Your task to perform on an android device: Open the stopwatch Image 0: 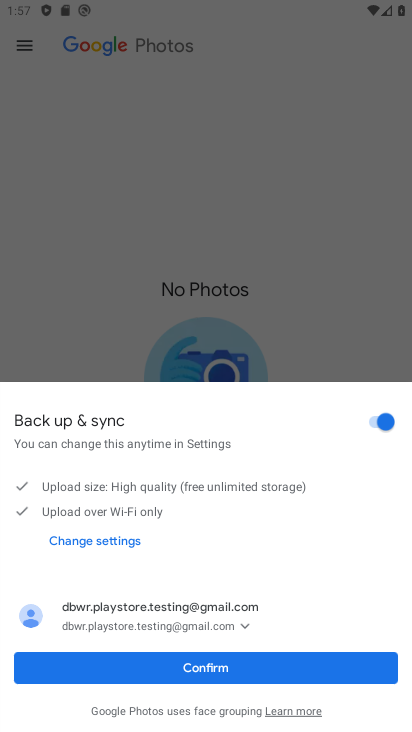
Step 0: press home button
Your task to perform on an android device: Open the stopwatch Image 1: 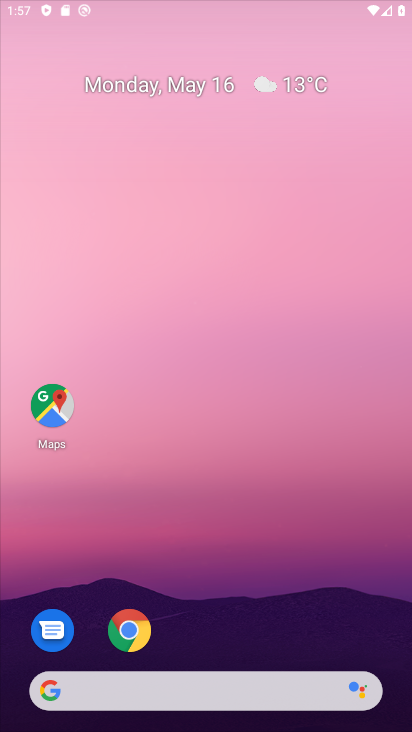
Step 1: drag from (312, 487) to (373, 44)
Your task to perform on an android device: Open the stopwatch Image 2: 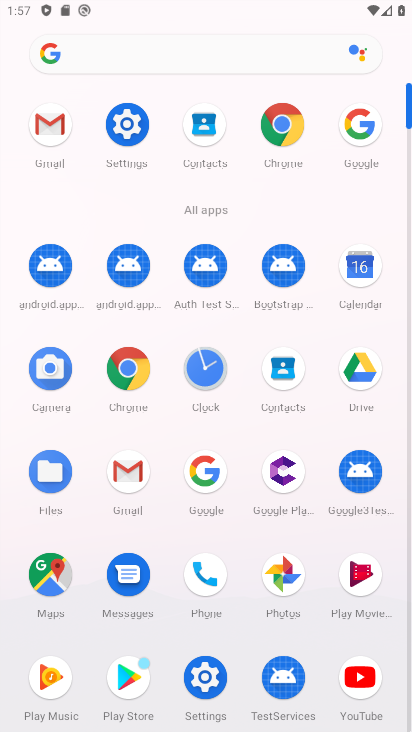
Step 2: click (208, 390)
Your task to perform on an android device: Open the stopwatch Image 3: 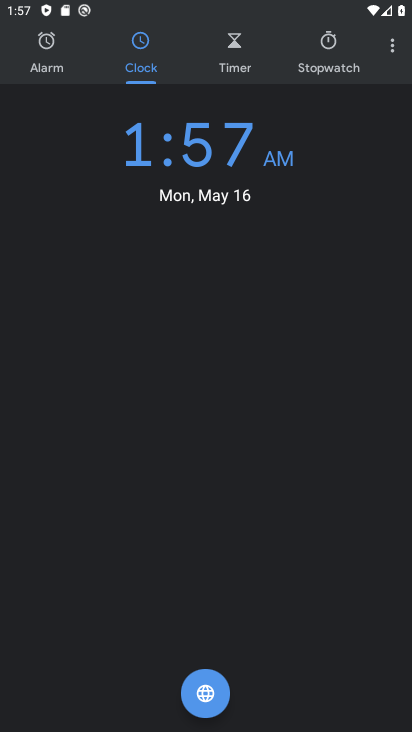
Step 3: click (330, 75)
Your task to perform on an android device: Open the stopwatch Image 4: 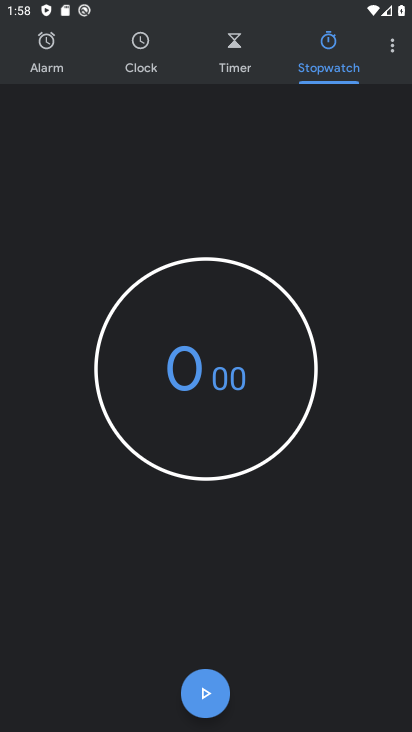
Step 4: task complete